Your task to perform on an android device: allow cookies in the chrome app Image 0: 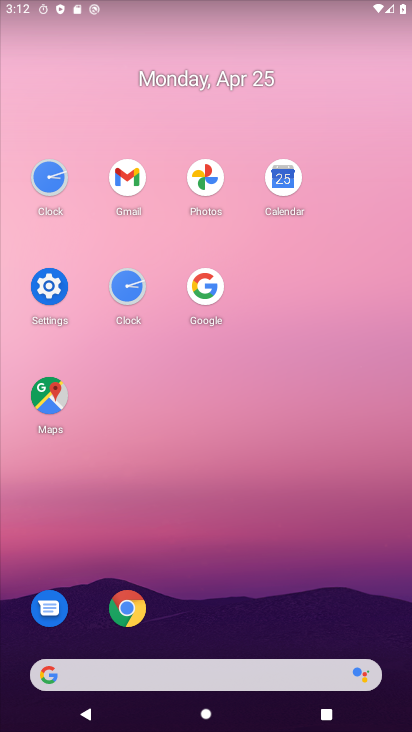
Step 0: click (140, 600)
Your task to perform on an android device: allow cookies in the chrome app Image 1: 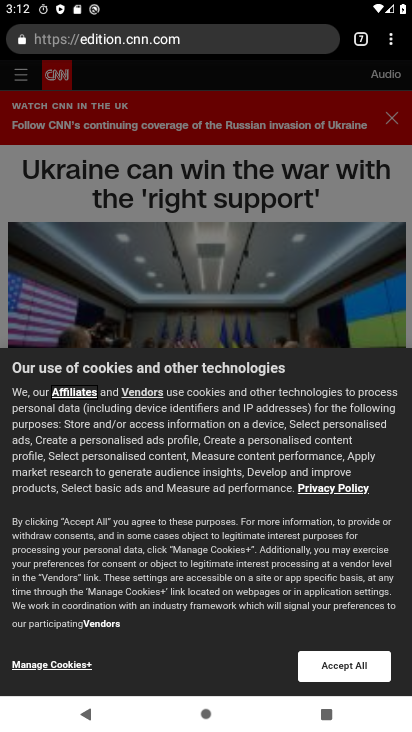
Step 1: click (391, 43)
Your task to perform on an android device: allow cookies in the chrome app Image 2: 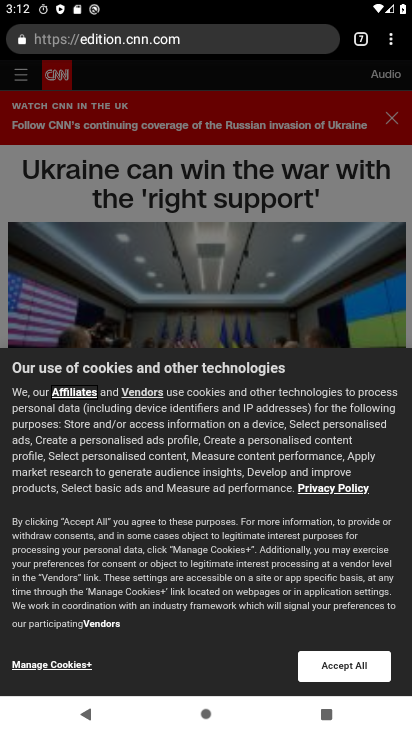
Step 2: click (392, 39)
Your task to perform on an android device: allow cookies in the chrome app Image 3: 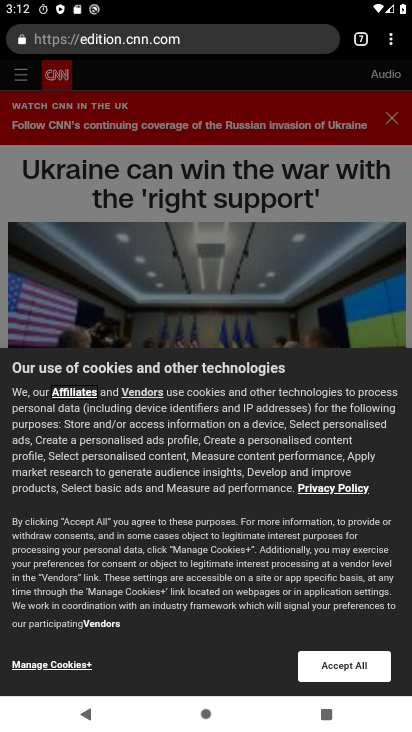
Step 3: click (400, 53)
Your task to perform on an android device: allow cookies in the chrome app Image 4: 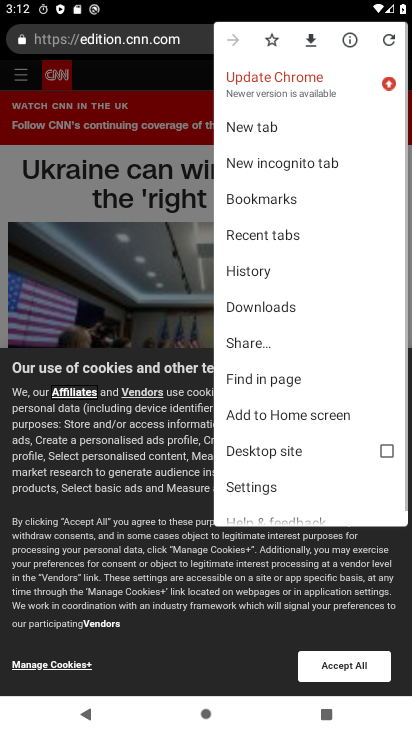
Step 4: drag from (313, 251) to (321, 151)
Your task to perform on an android device: allow cookies in the chrome app Image 5: 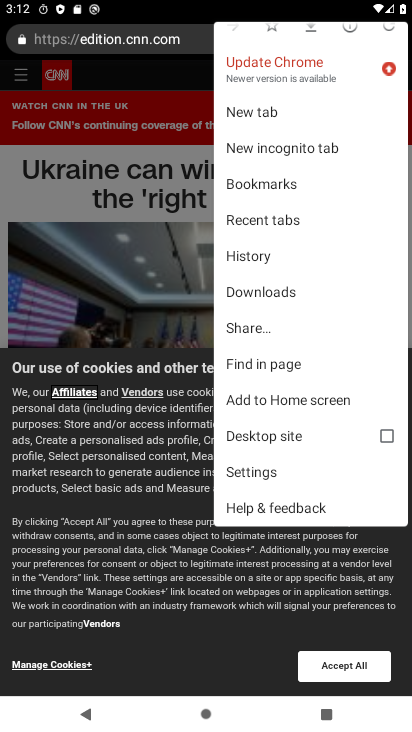
Step 5: click (261, 465)
Your task to perform on an android device: allow cookies in the chrome app Image 6: 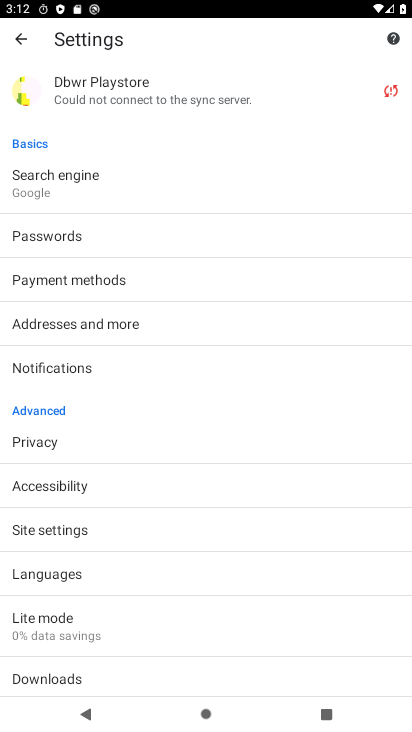
Step 6: drag from (204, 567) to (240, 242)
Your task to perform on an android device: allow cookies in the chrome app Image 7: 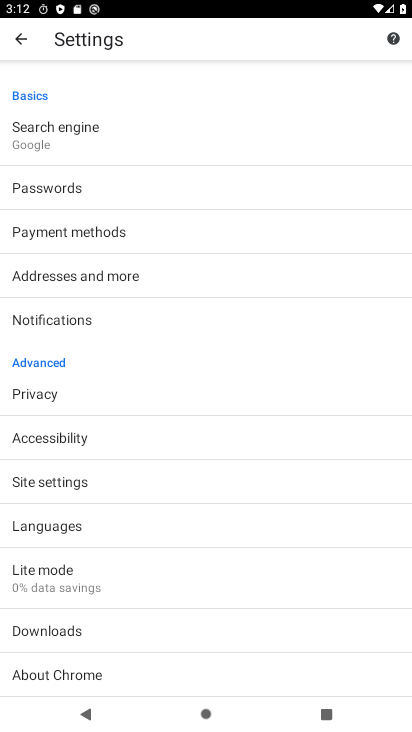
Step 7: click (129, 478)
Your task to perform on an android device: allow cookies in the chrome app Image 8: 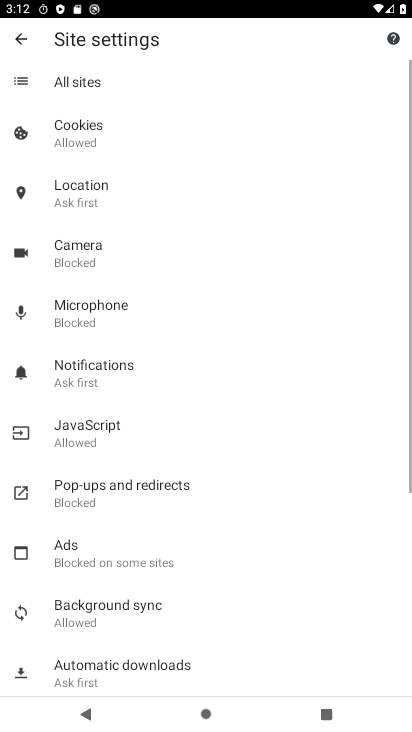
Step 8: click (279, 145)
Your task to perform on an android device: allow cookies in the chrome app Image 9: 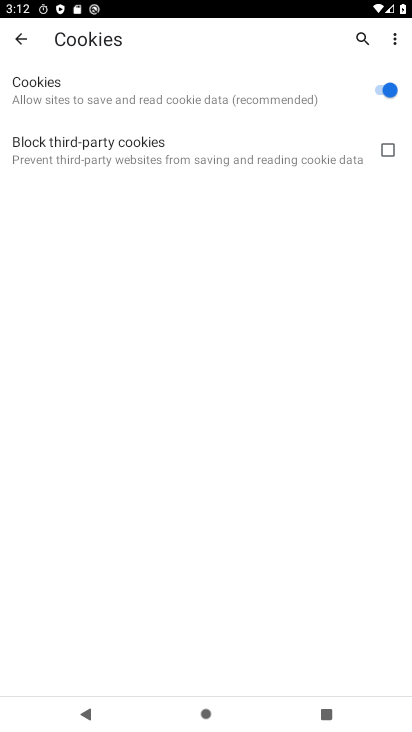
Step 9: task complete